Your task to perform on an android device: Open notification settings Image 0: 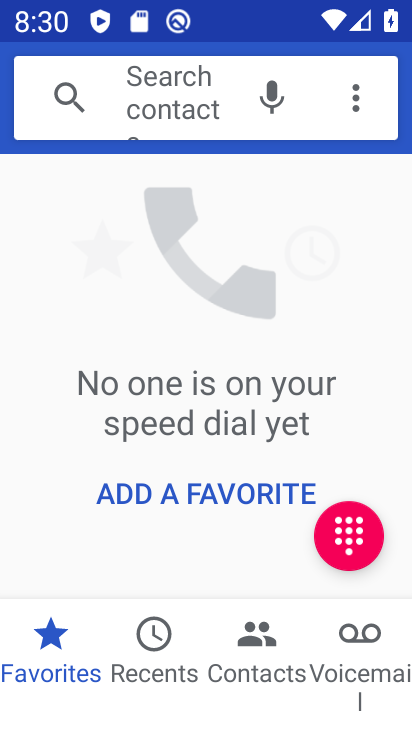
Step 0: press home button
Your task to perform on an android device: Open notification settings Image 1: 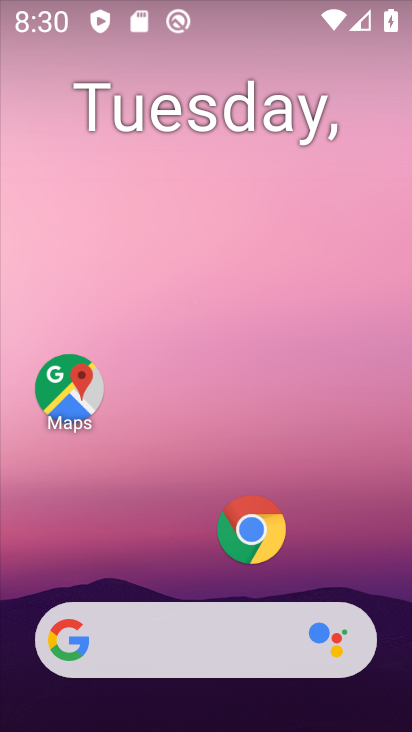
Step 1: drag from (199, 583) to (243, 118)
Your task to perform on an android device: Open notification settings Image 2: 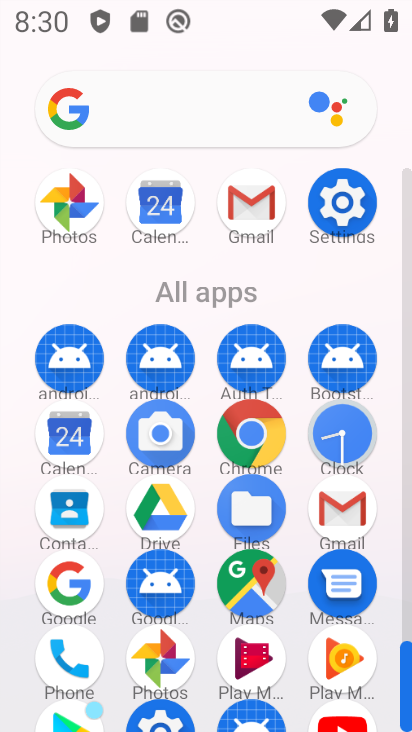
Step 2: click (345, 199)
Your task to perform on an android device: Open notification settings Image 3: 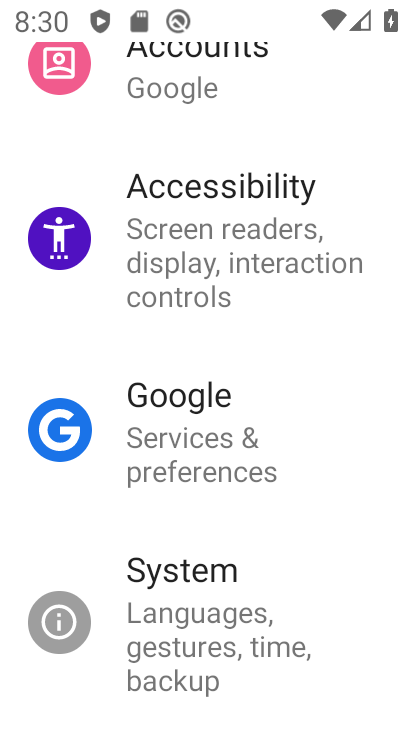
Step 3: drag from (210, 112) to (184, 712)
Your task to perform on an android device: Open notification settings Image 4: 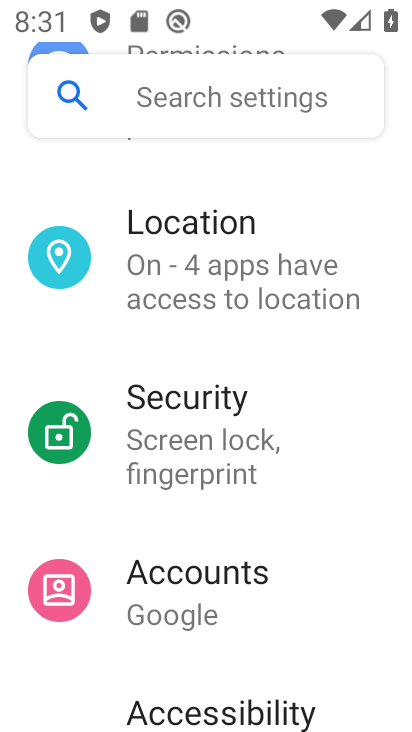
Step 4: drag from (245, 203) to (260, 729)
Your task to perform on an android device: Open notification settings Image 5: 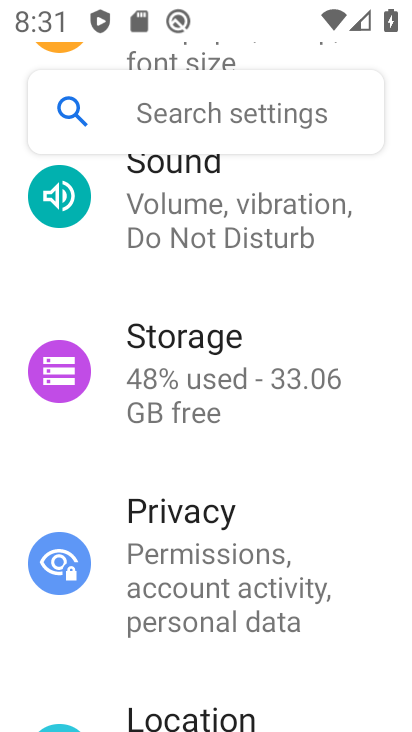
Step 5: drag from (228, 178) to (241, 562)
Your task to perform on an android device: Open notification settings Image 6: 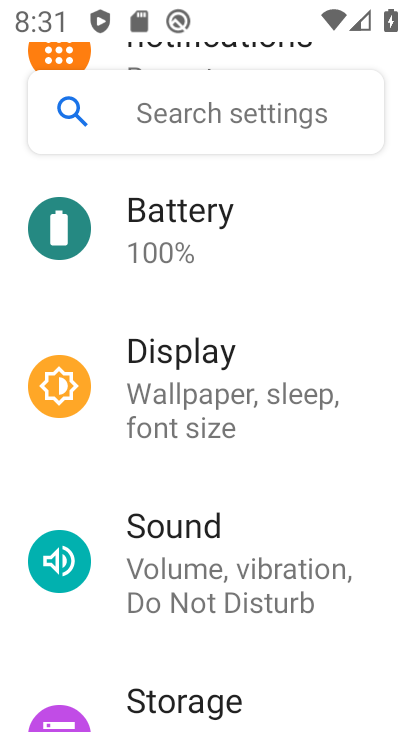
Step 6: drag from (200, 194) to (208, 693)
Your task to perform on an android device: Open notification settings Image 7: 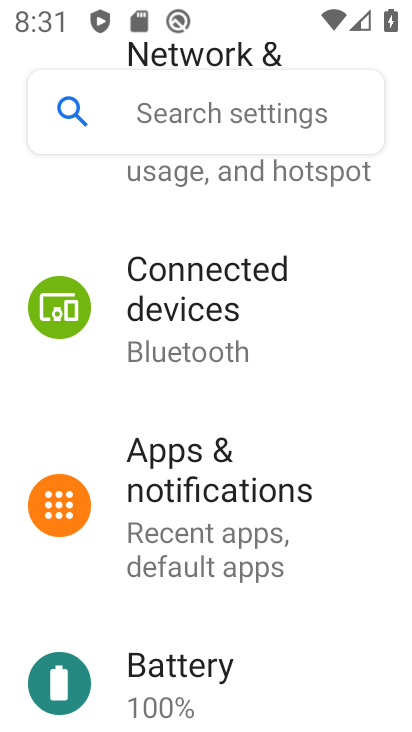
Step 7: drag from (191, 212) to (203, 648)
Your task to perform on an android device: Open notification settings Image 8: 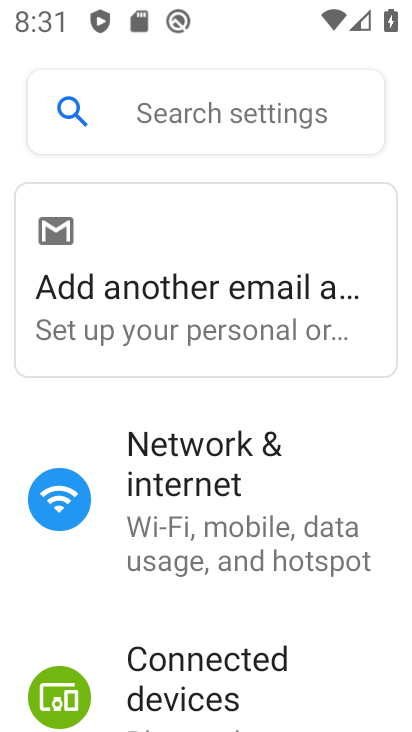
Step 8: drag from (244, 597) to (300, 184)
Your task to perform on an android device: Open notification settings Image 9: 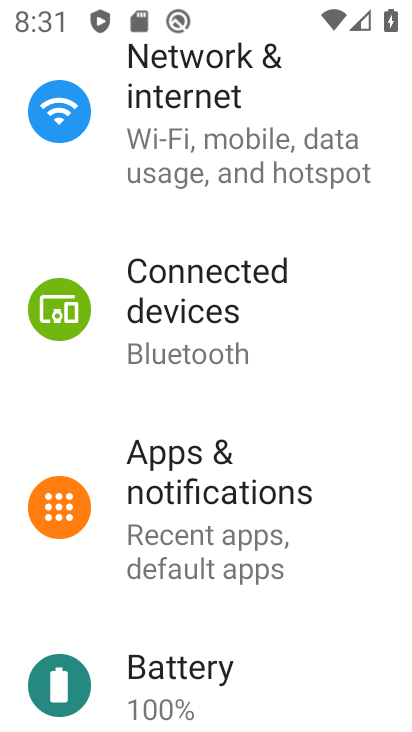
Step 9: click (245, 510)
Your task to perform on an android device: Open notification settings Image 10: 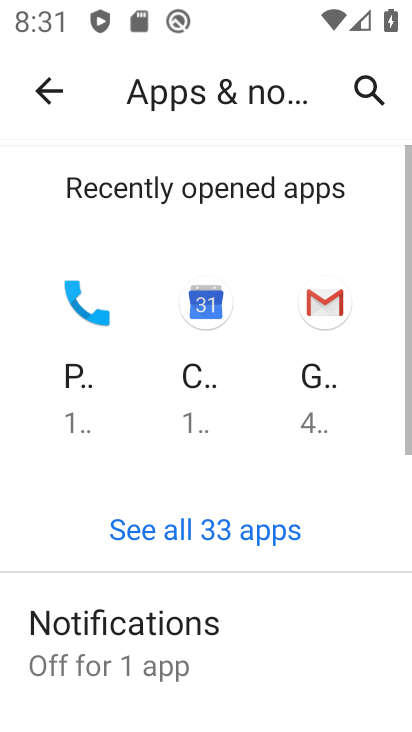
Step 10: click (201, 651)
Your task to perform on an android device: Open notification settings Image 11: 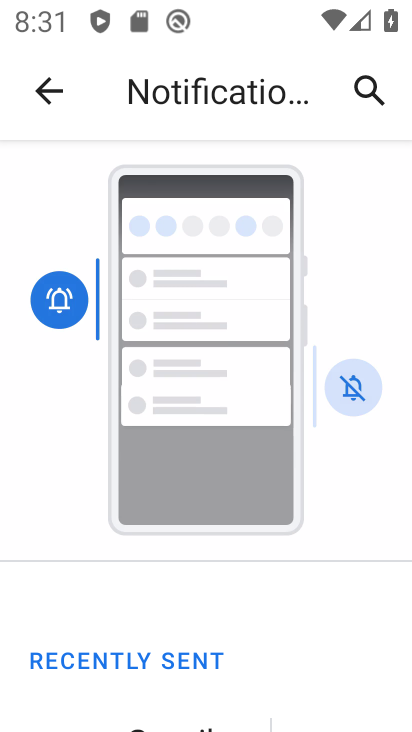
Step 11: drag from (243, 666) to (283, 148)
Your task to perform on an android device: Open notification settings Image 12: 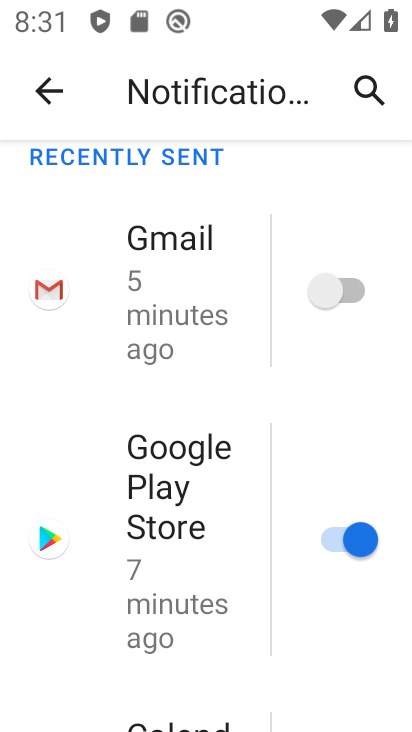
Step 12: drag from (247, 650) to (278, 142)
Your task to perform on an android device: Open notification settings Image 13: 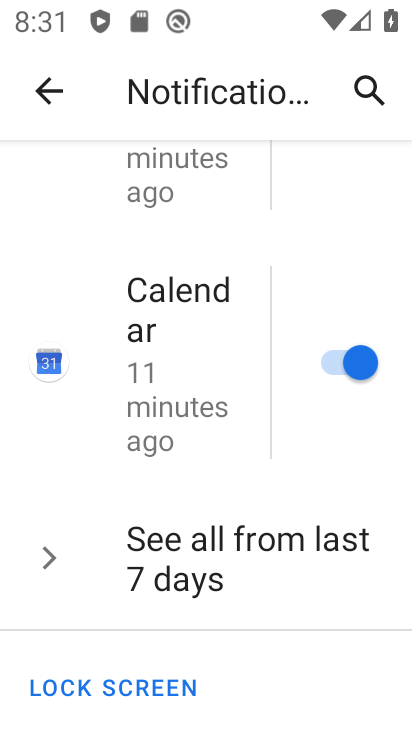
Step 13: drag from (242, 557) to (276, 190)
Your task to perform on an android device: Open notification settings Image 14: 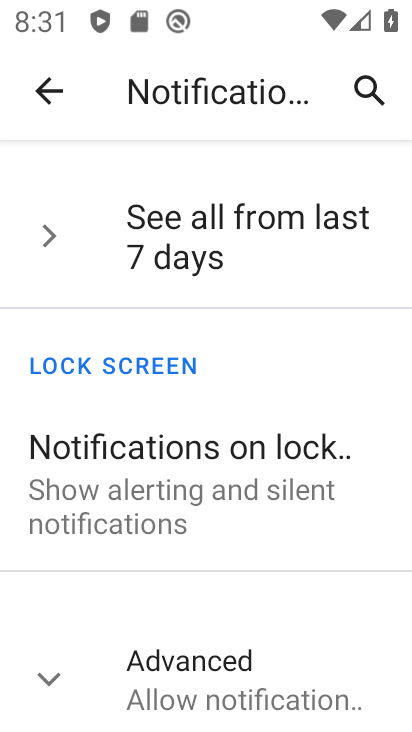
Step 14: drag from (220, 615) to (248, 307)
Your task to perform on an android device: Open notification settings Image 15: 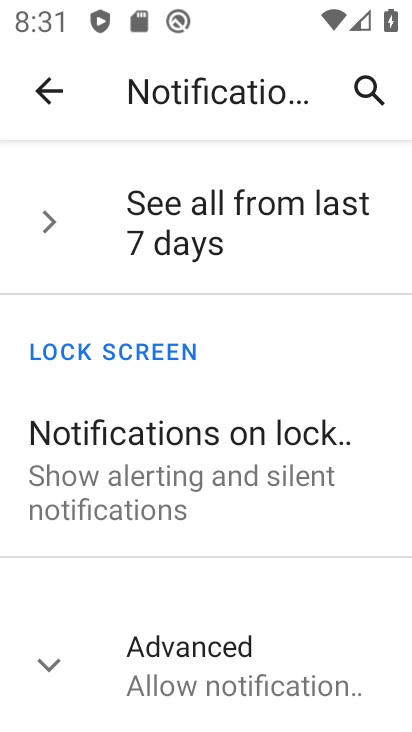
Step 15: click (41, 660)
Your task to perform on an android device: Open notification settings Image 16: 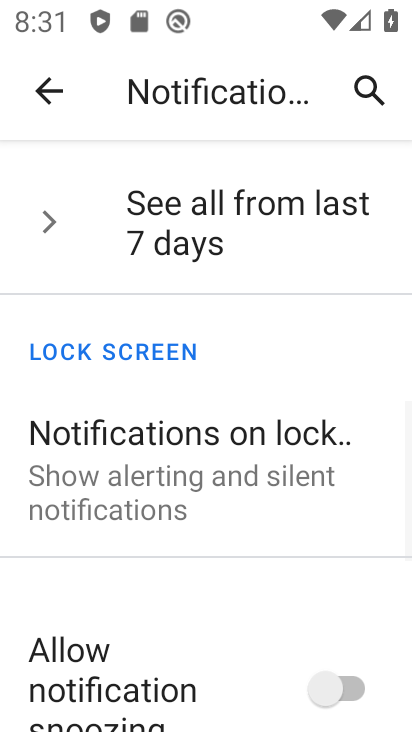
Step 16: task complete